Your task to perform on an android device: turn pop-ups on in chrome Image 0: 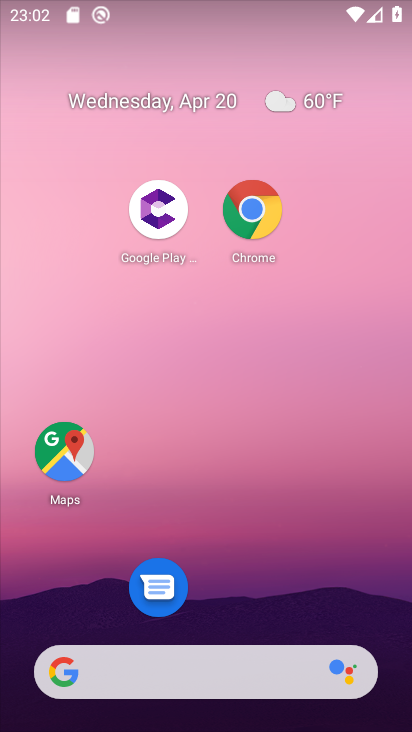
Step 0: click (249, 201)
Your task to perform on an android device: turn pop-ups on in chrome Image 1: 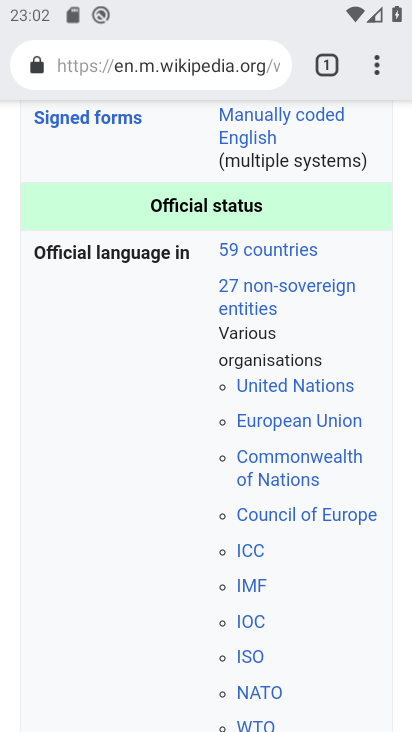
Step 1: click (376, 64)
Your task to perform on an android device: turn pop-ups on in chrome Image 2: 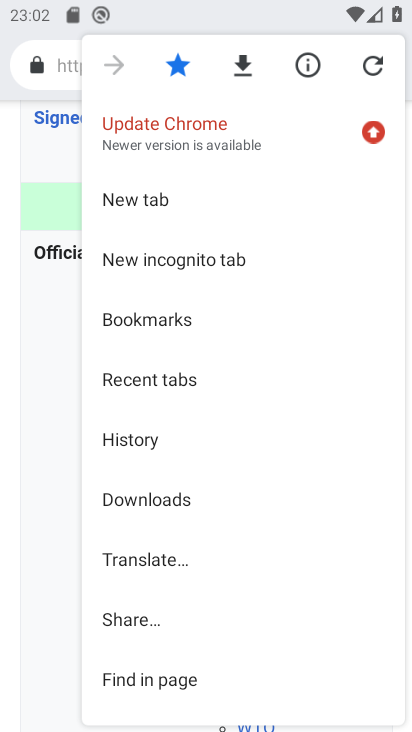
Step 2: drag from (234, 593) to (240, 90)
Your task to perform on an android device: turn pop-ups on in chrome Image 3: 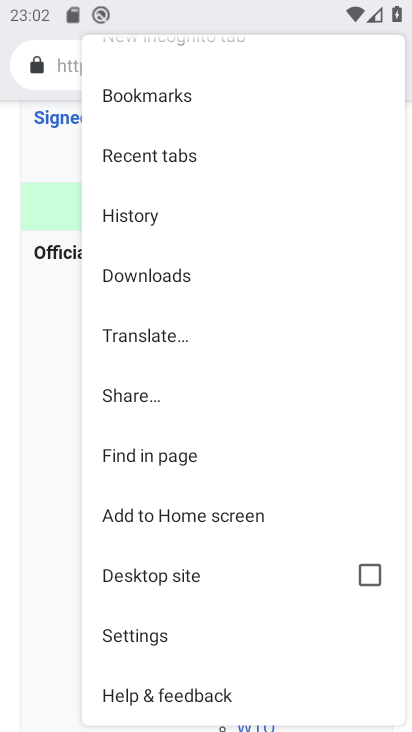
Step 3: click (174, 630)
Your task to perform on an android device: turn pop-ups on in chrome Image 4: 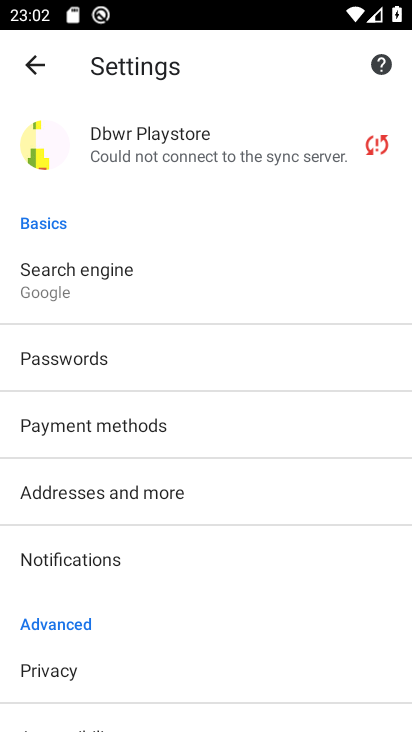
Step 4: drag from (197, 692) to (235, 202)
Your task to perform on an android device: turn pop-ups on in chrome Image 5: 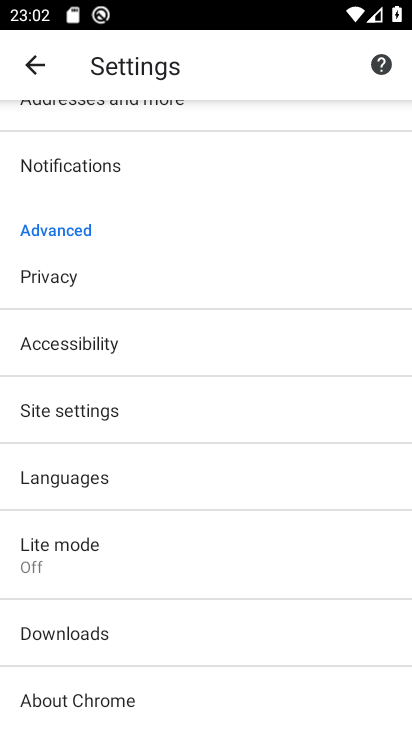
Step 5: click (130, 403)
Your task to perform on an android device: turn pop-ups on in chrome Image 6: 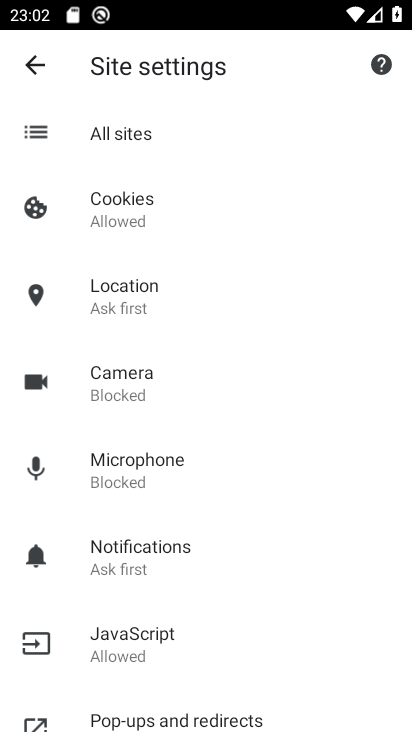
Step 6: click (282, 709)
Your task to perform on an android device: turn pop-ups on in chrome Image 7: 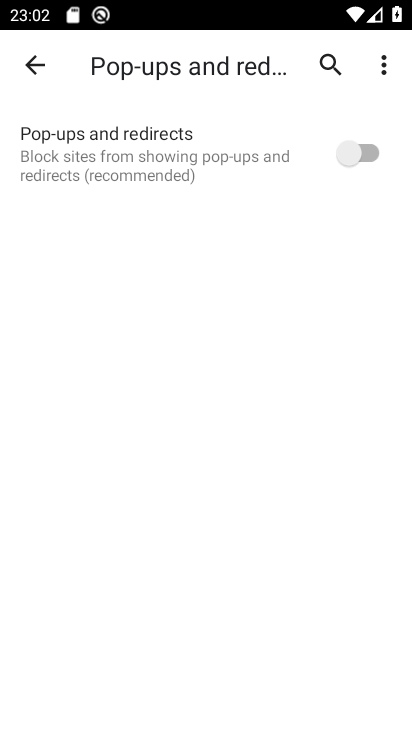
Step 7: click (366, 151)
Your task to perform on an android device: turn pop-ups on in chrome Image 8: 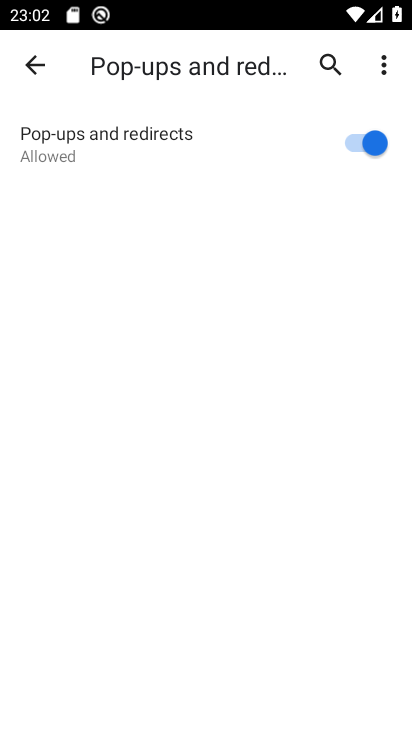
Step 8: task complete